Your task to perform on an android device: star an email in the gmail app Image 0: 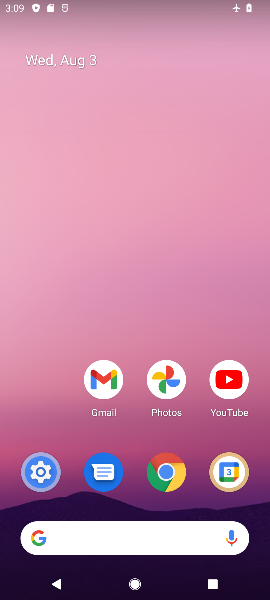
Step 0: press back button
Your task to perform on an android device: star an email in the gmail app Image 1: 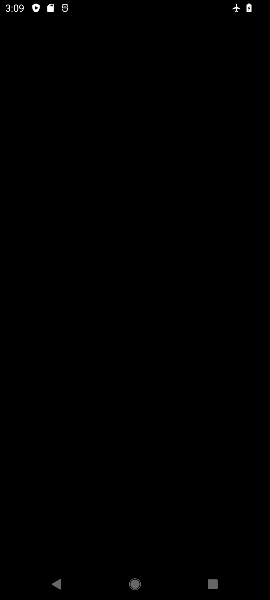
Step 1: press home button
Your task to perform on an android device: star an email in the gmail app Image 2: 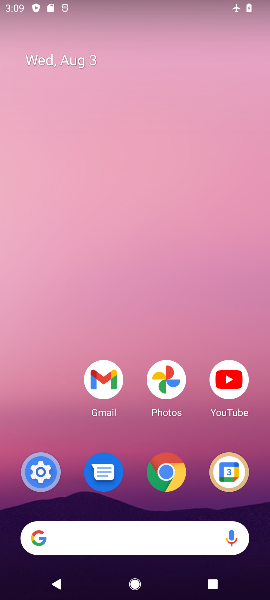
Step 2: drag from (57, 391) to (142, 0)
Your task to perform on an android device: star an email in the gmail app Image 3: 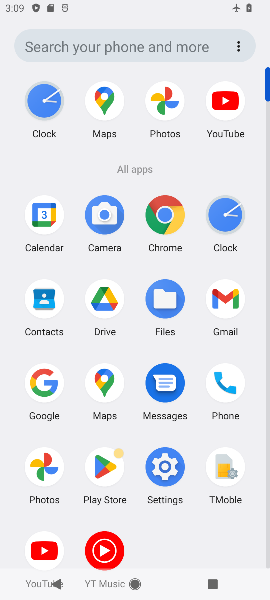
Step 3: click (223, 299)
Your task to perform on an android device: star an email in the gmail app Image 4: 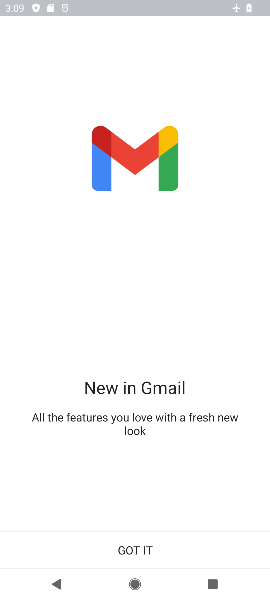
Step 4: click (124, 571)
Your task to perform on an android device: star an email in the gmail app Image 5: 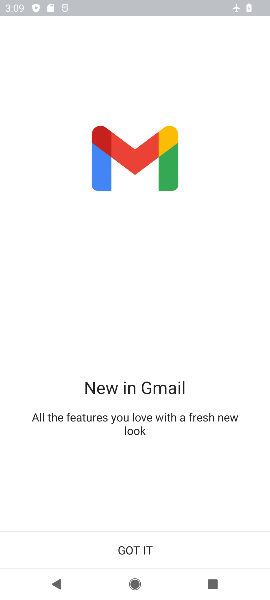
Step 5: click (124, 546)
Your task to perform on an android device: star an email in the gmail app Image 6: 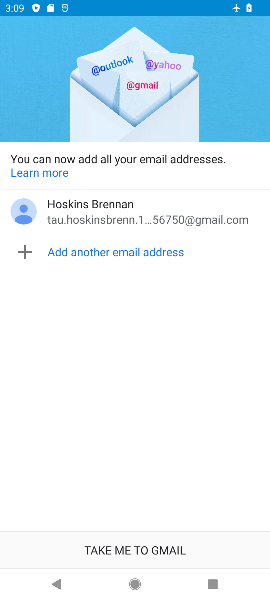
Step 6: click (114, 551)
Your task to perform on an android device: star an email in the gmail app Image 7: 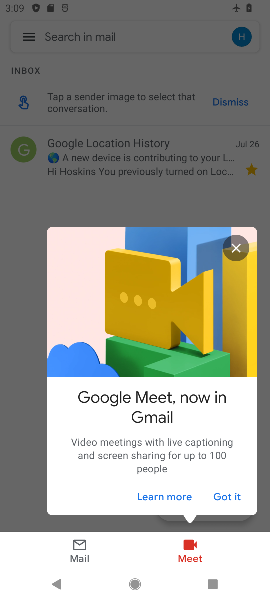
Step 7: click (239, 244)
Your task to perform on an android device: star an email in the gmail app Image 8: 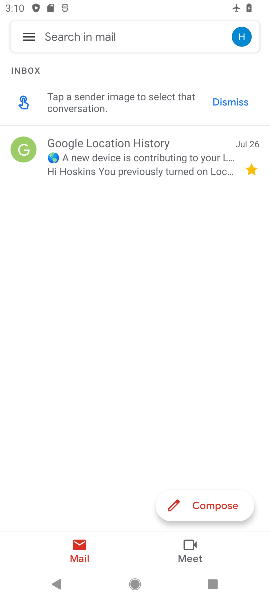
Step 8: task complete